Your task to perform on an android device: Clear all items from cart on ebay.com. Add "usb-a to usb-b" to the cart on ebay.com, then select checkout. Image 0: 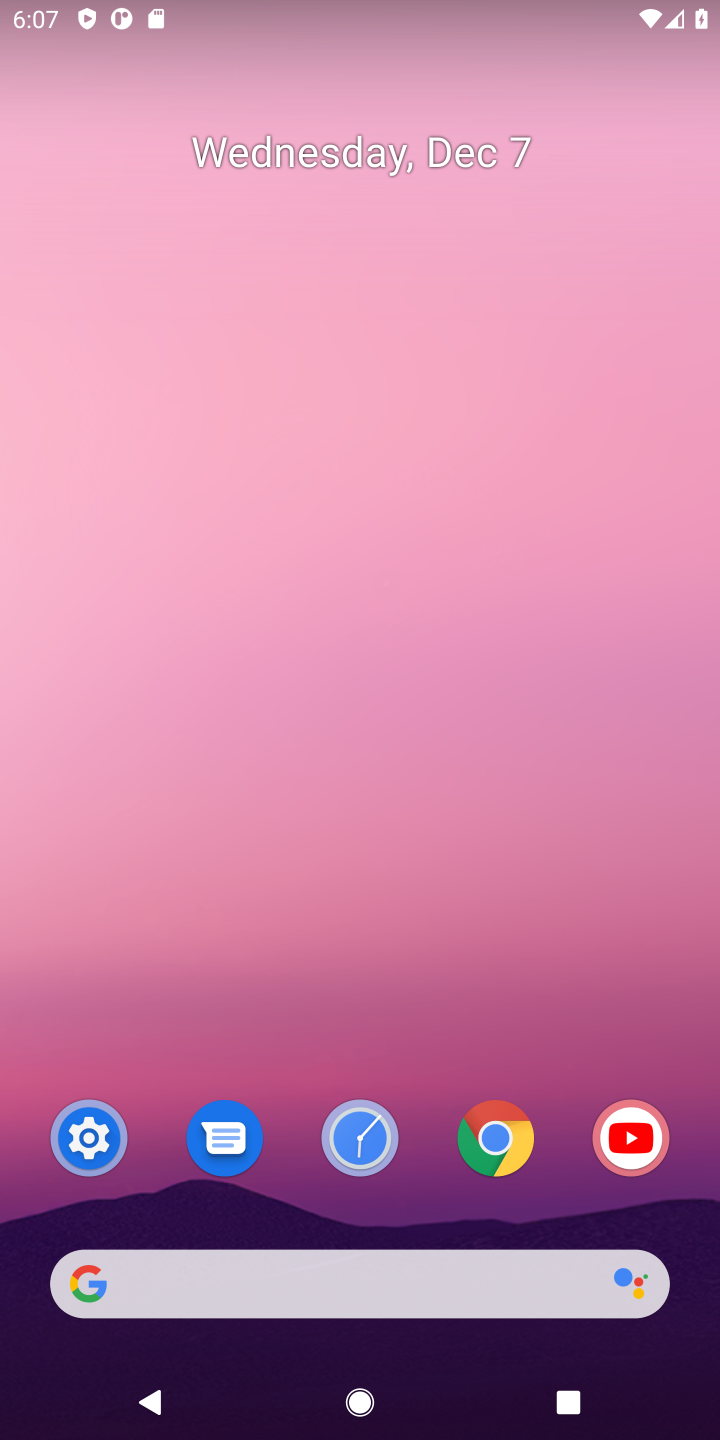
Step 0: press home button
Your task to perform on an android device: Clear all items from cart on ebay.com. Add "usb-a to usb-b" to the cart on ebay.com, then select checkout. Image 1: 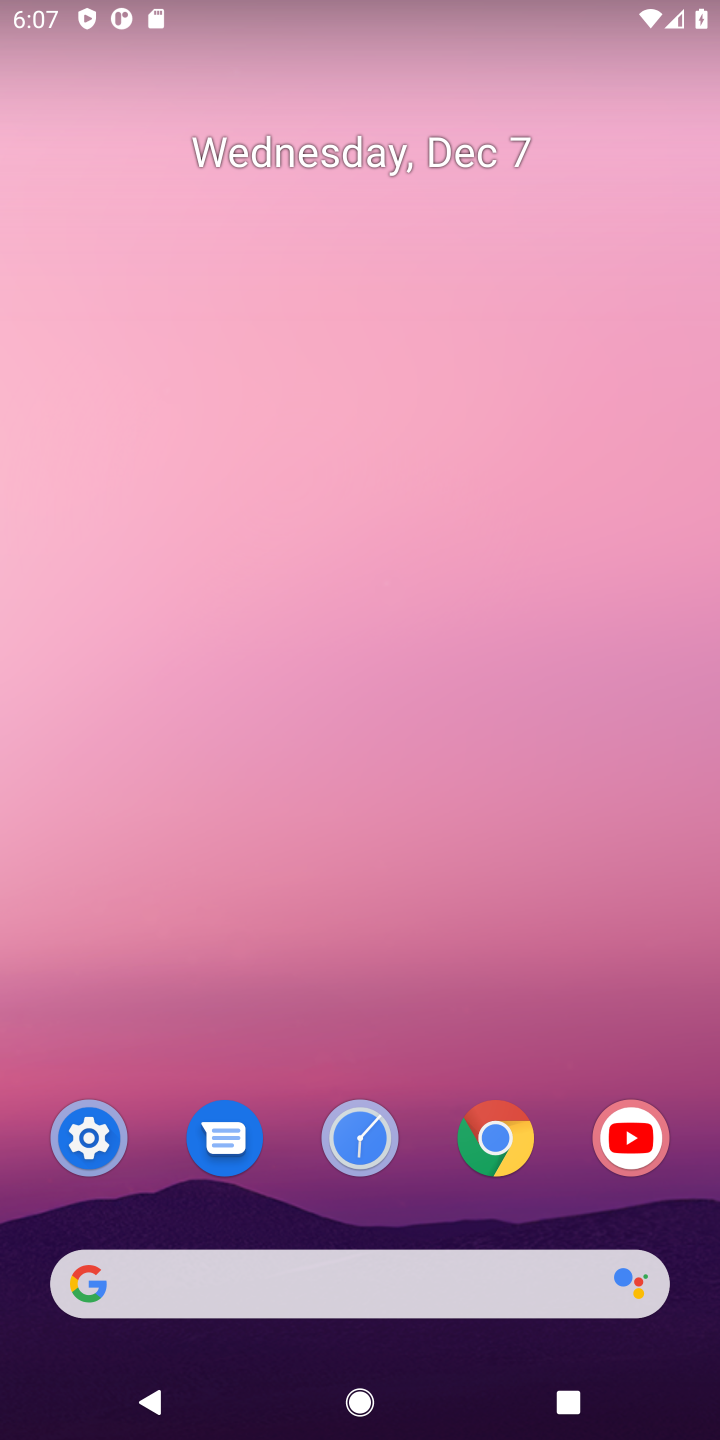
Step 1: click (286, 1288)
Your task to perform on an android device: Clear all items from cart on ebay.com. Add "usb-a to usb-b" to the cart on ebay.com, then select checkout. Image 2: 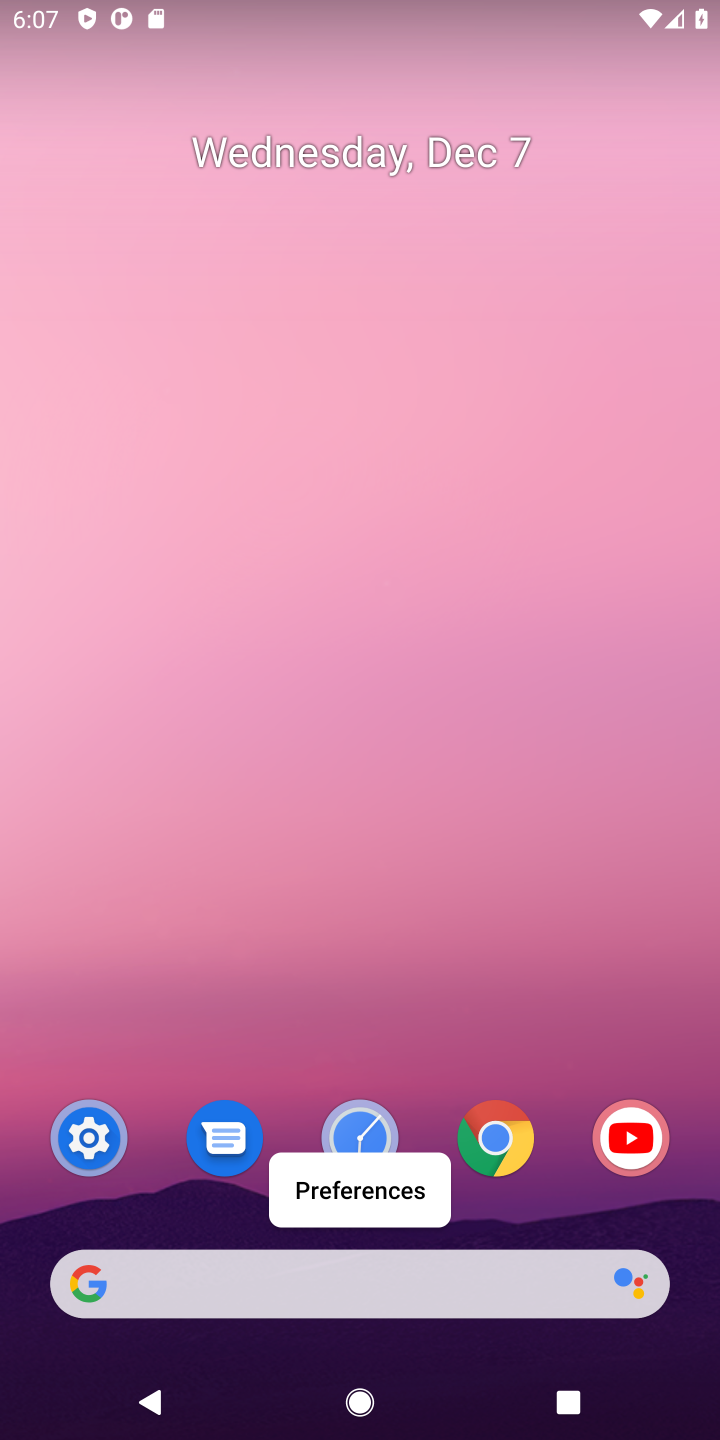
Step 2: click (165, 1279)
Your task to perform on an android device: Clear all items from cart on ebay.com. Add "usb-a to usb-b" to the cart on ebay.com, then select checkout. Image 3: 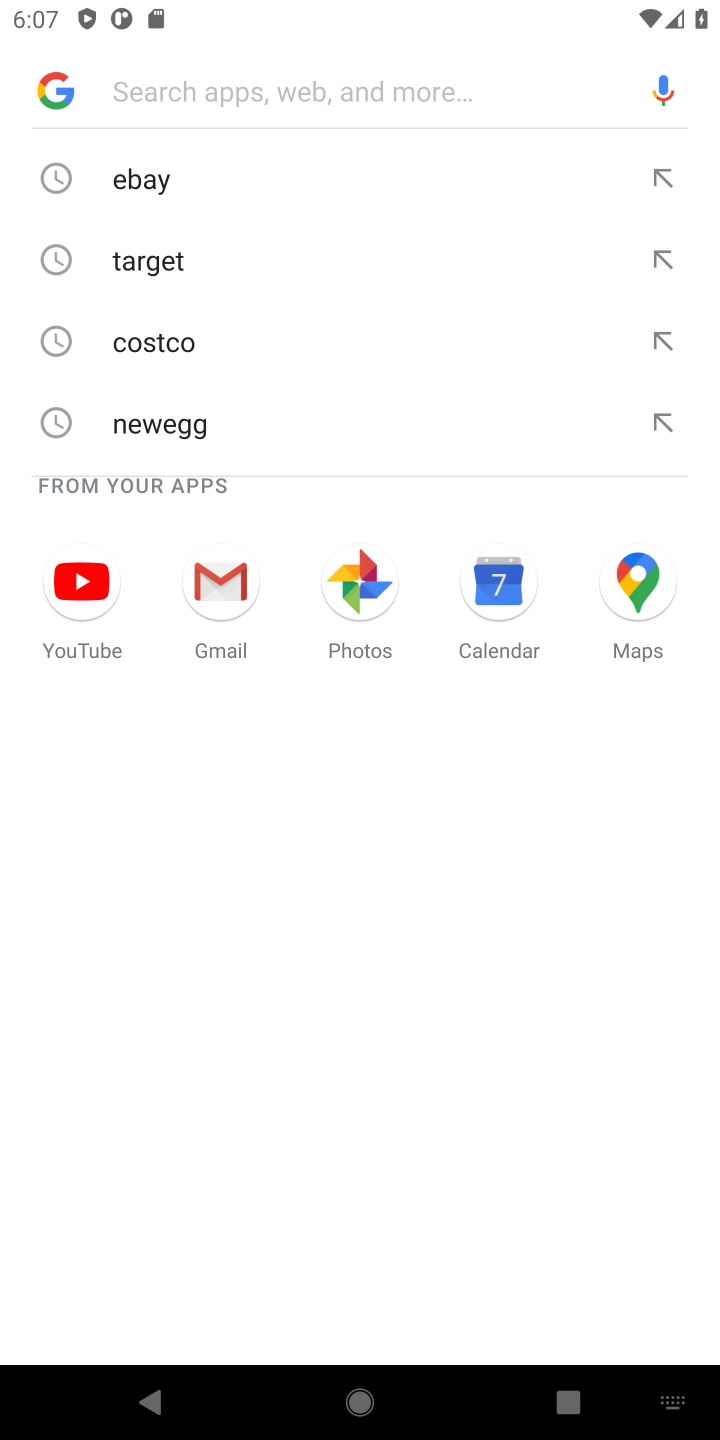
Step 3: press enter
Your task to perform on an android device: Clear all items from cart on ebay.com. Add "usb-a to usb-b" to the cart on ebay.com, then select checkout. Image 4: 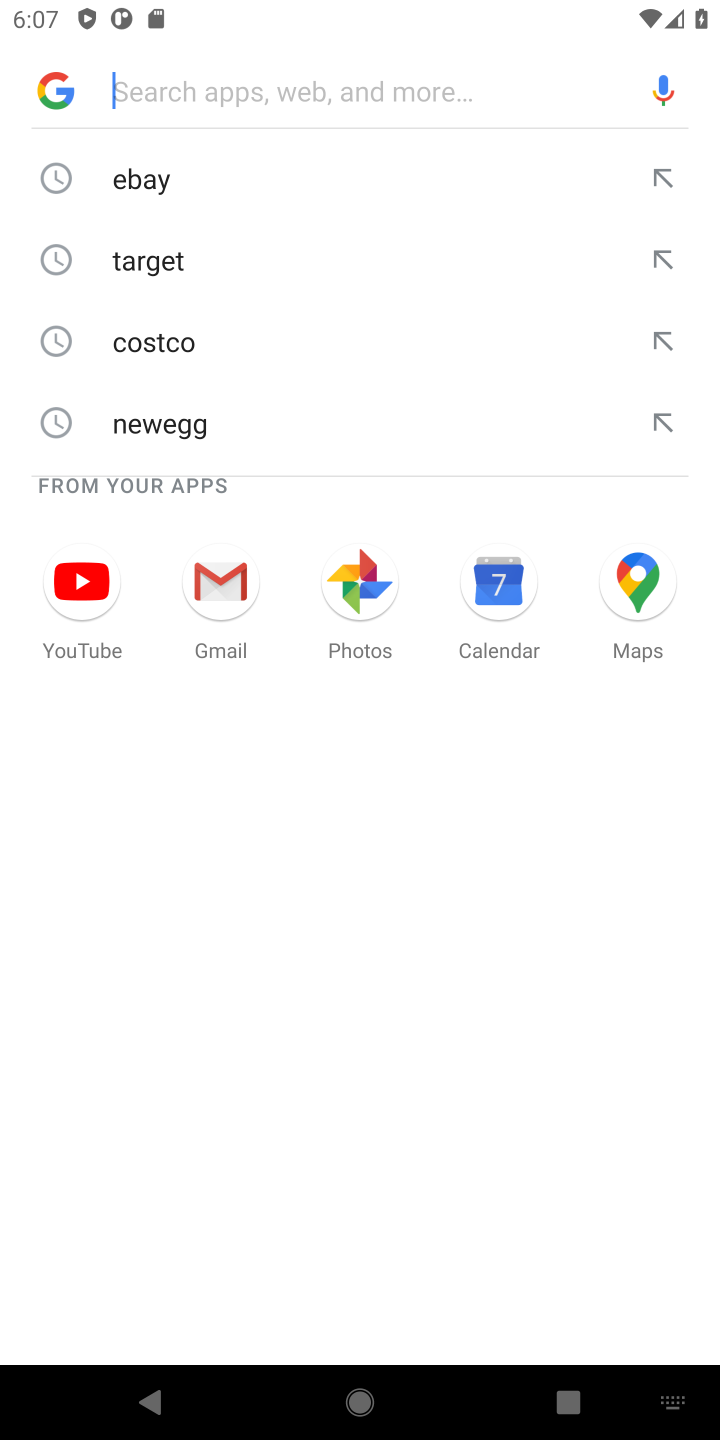
Step 4: type "ebay.com"
Your task to perform on an android device: Clear all items from cart on ebay.com. Add "usb-a to usb-b" to the cart on ebay.com, then select checkout. Image 5: 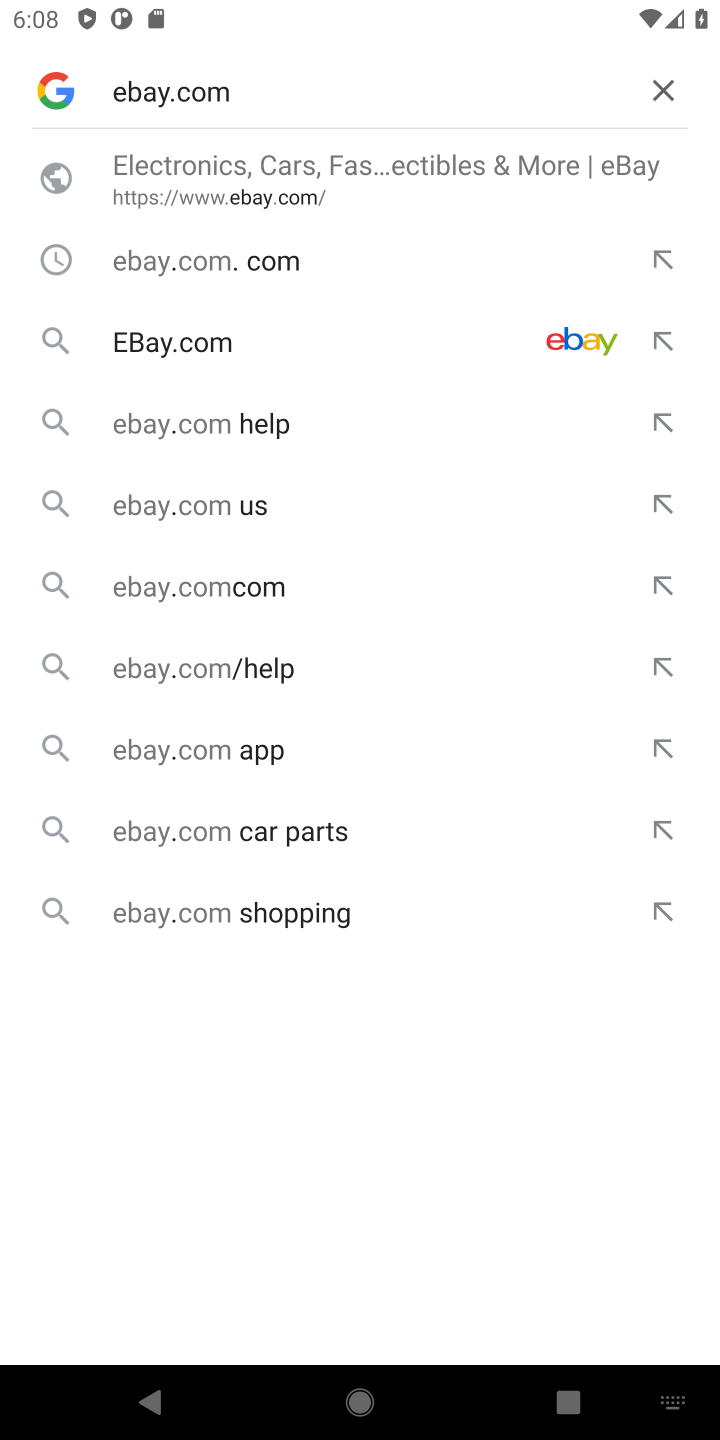
Step 5: press enter
Your task to perform on an android device: Clear all items from cart on ebay.com. Add "usb-a to usb-b" to the cart on ebay.com, then select checkout. Image 6: 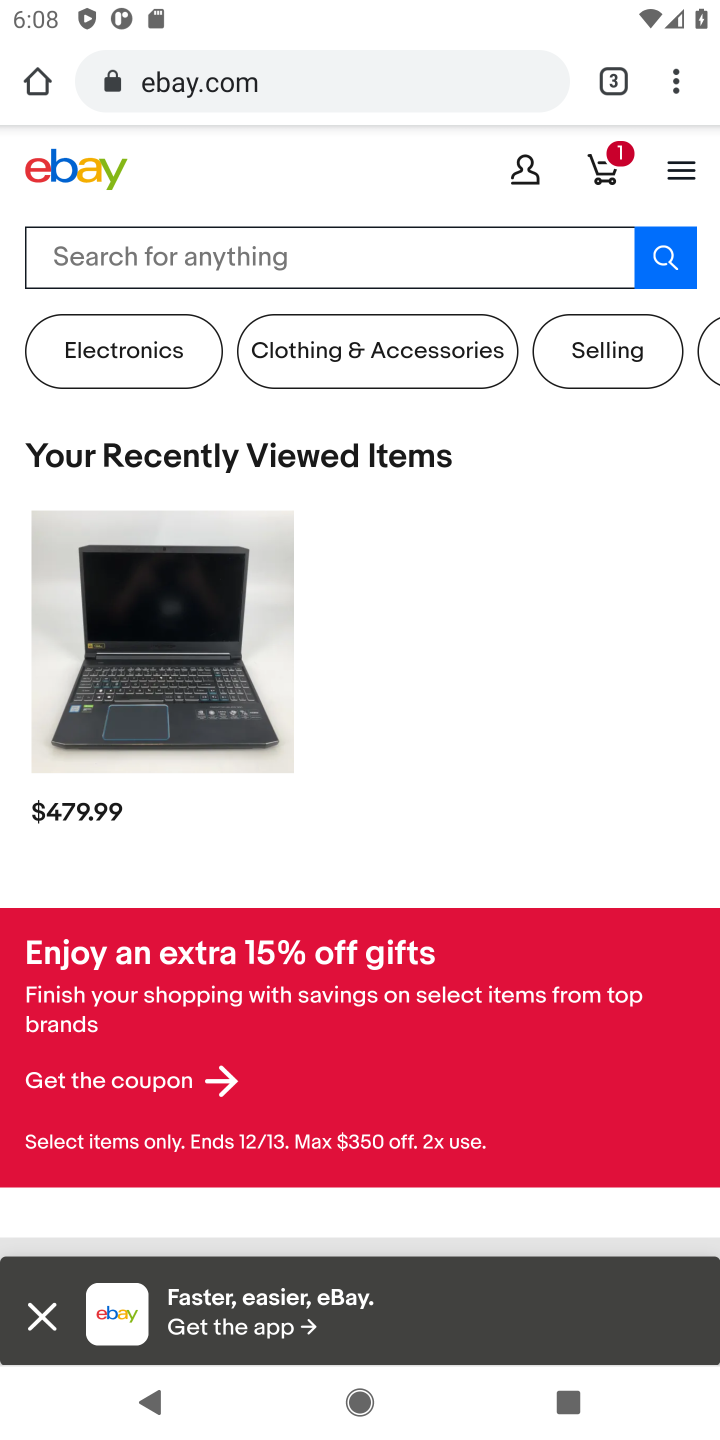
Step 6: click (184, 257)
Your task to perform on an android device: Clear all items from cart on ebay.com. Add "usb-a to usb-b" to the cart on ebay.com, then select checkout. Image 7: 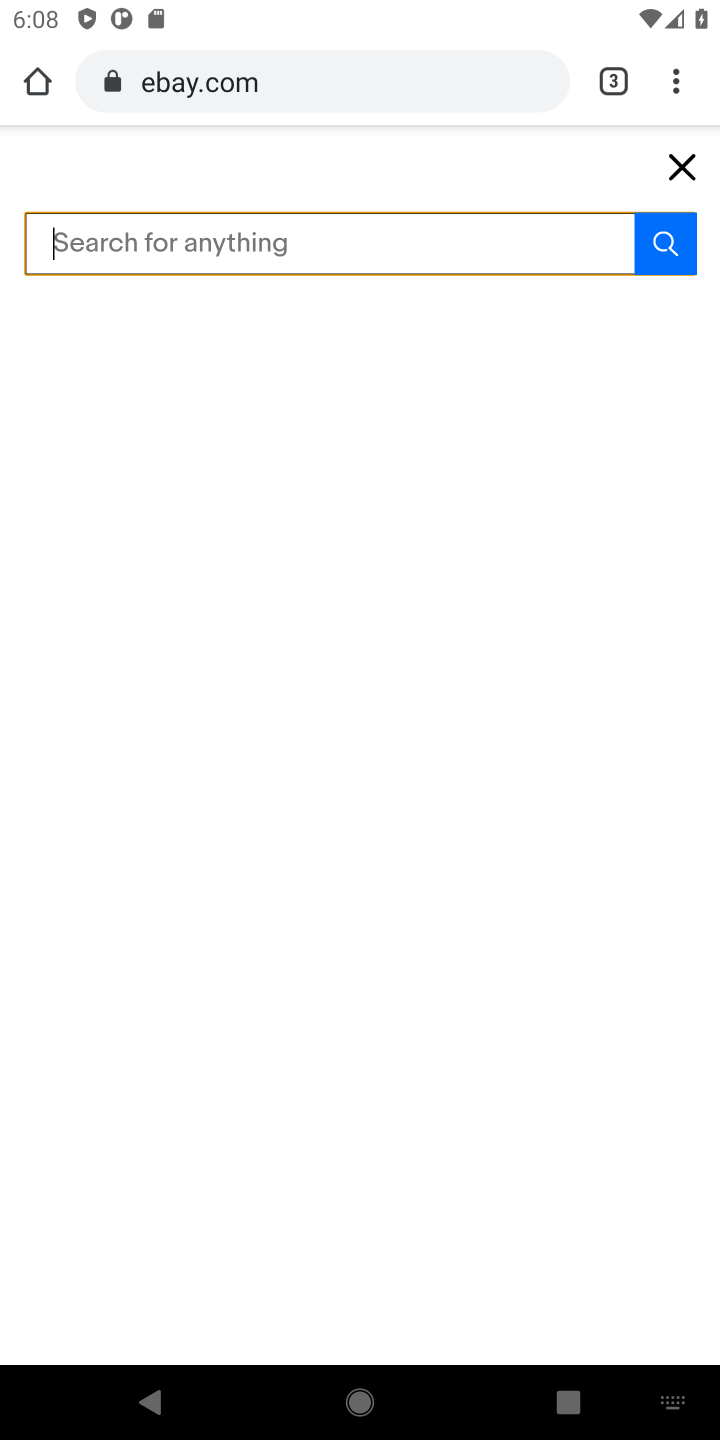
Step 7: type "usb-a to usb-b"
Your task to perform on an android device: Clear all items from cart on ebay.com. Add "usb-a to usb-b" to the cart on ebay.com, then select checkout. Image 8: 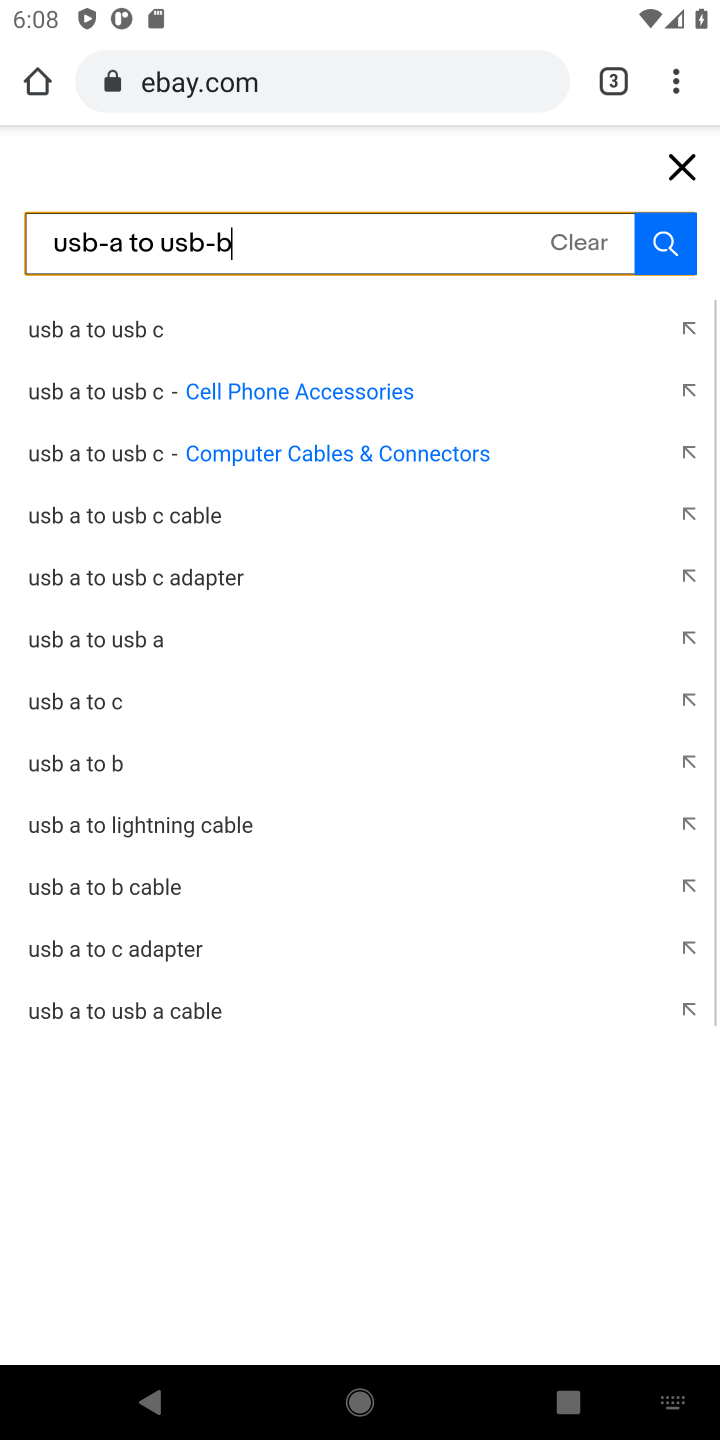
Step 8: press enter
Your task to perform on an android device: Clear all items from cart on ebay.com. Add "usb-a to usb-b" to the cart on ebay.com, then select checkout. Image 9: 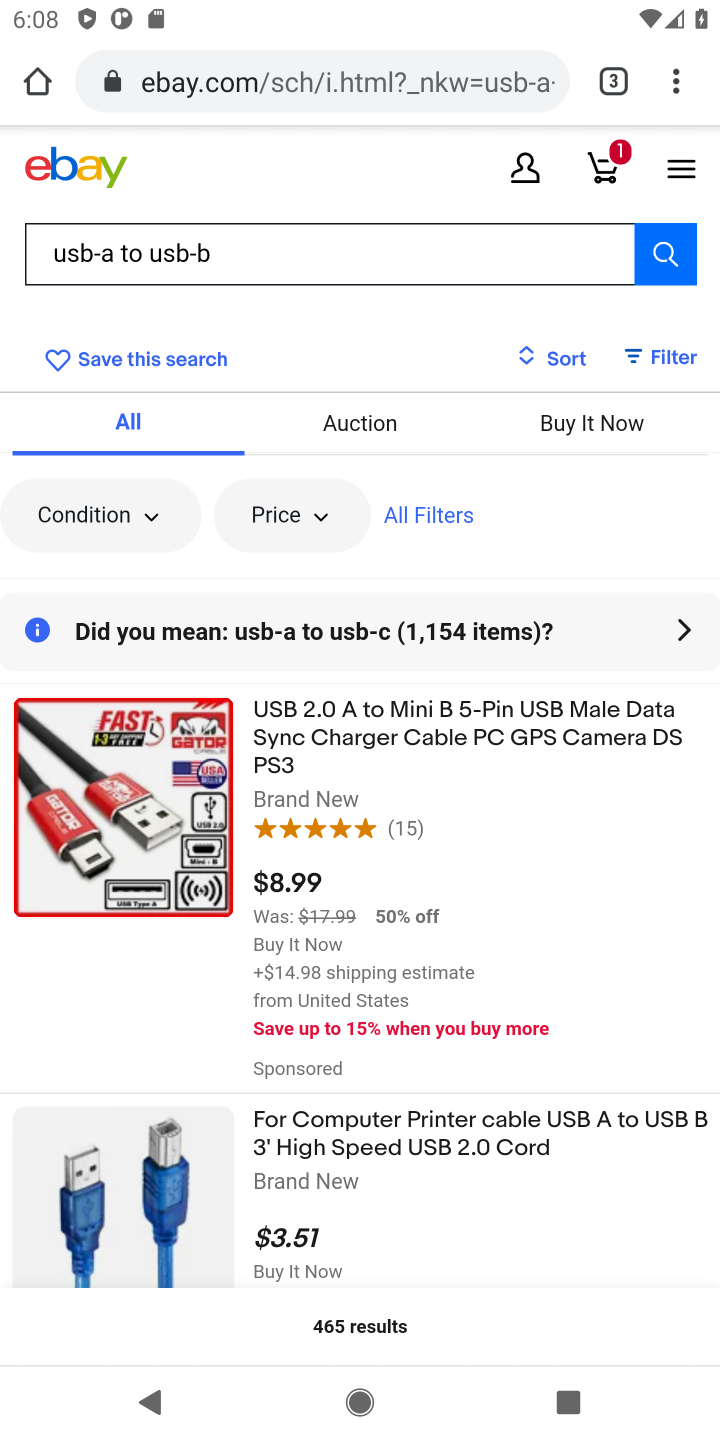
Step 9: click (410, 708)
Your task to perform on an android device: Clear all items from cart on ebay.com. Add "usb-a to usb-b" to the cart on ebay.com, then select checkout. Image 10: 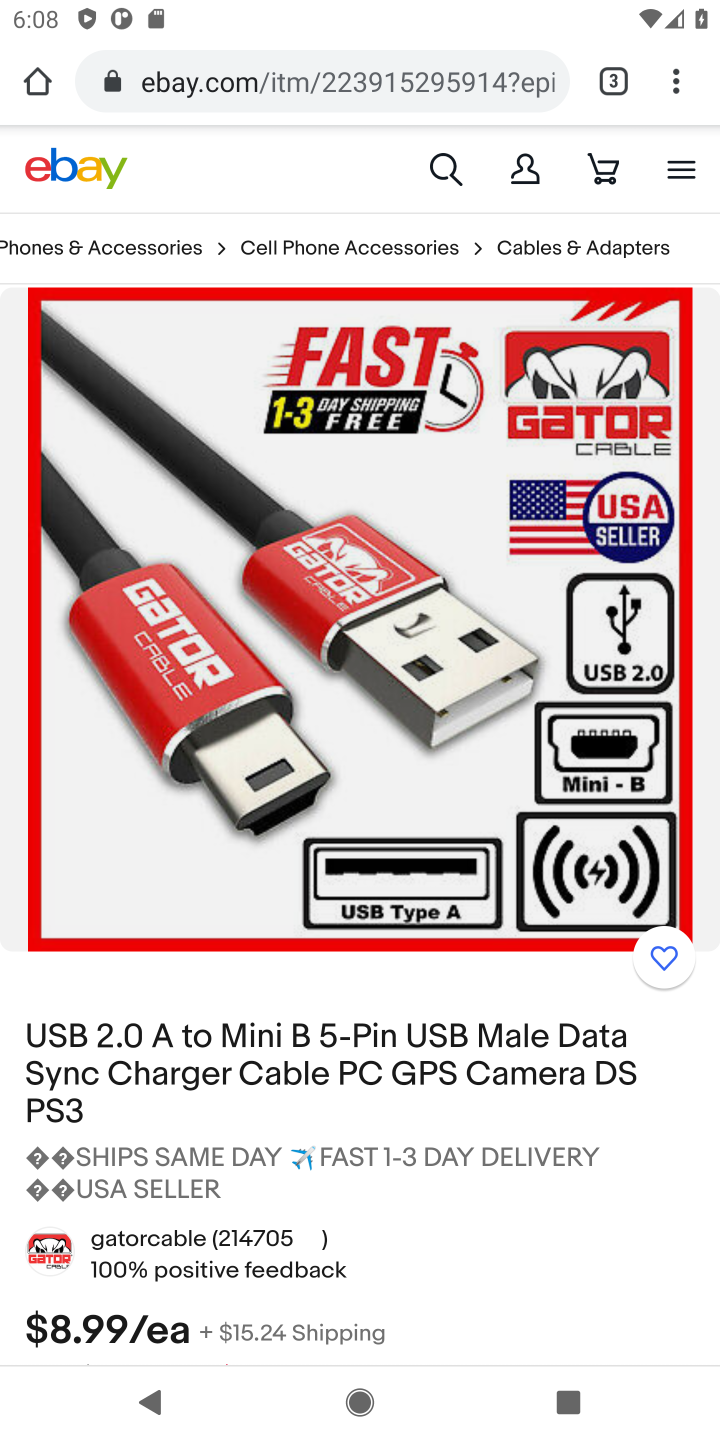
Step 10: drag from (359, 1156) to (459, 590)
Your task to perform on an android device: Clear all items from cart on ebay.com. Add "usb-a to usb-b" to the cart on ebay.com, then select checkout. Image 11: 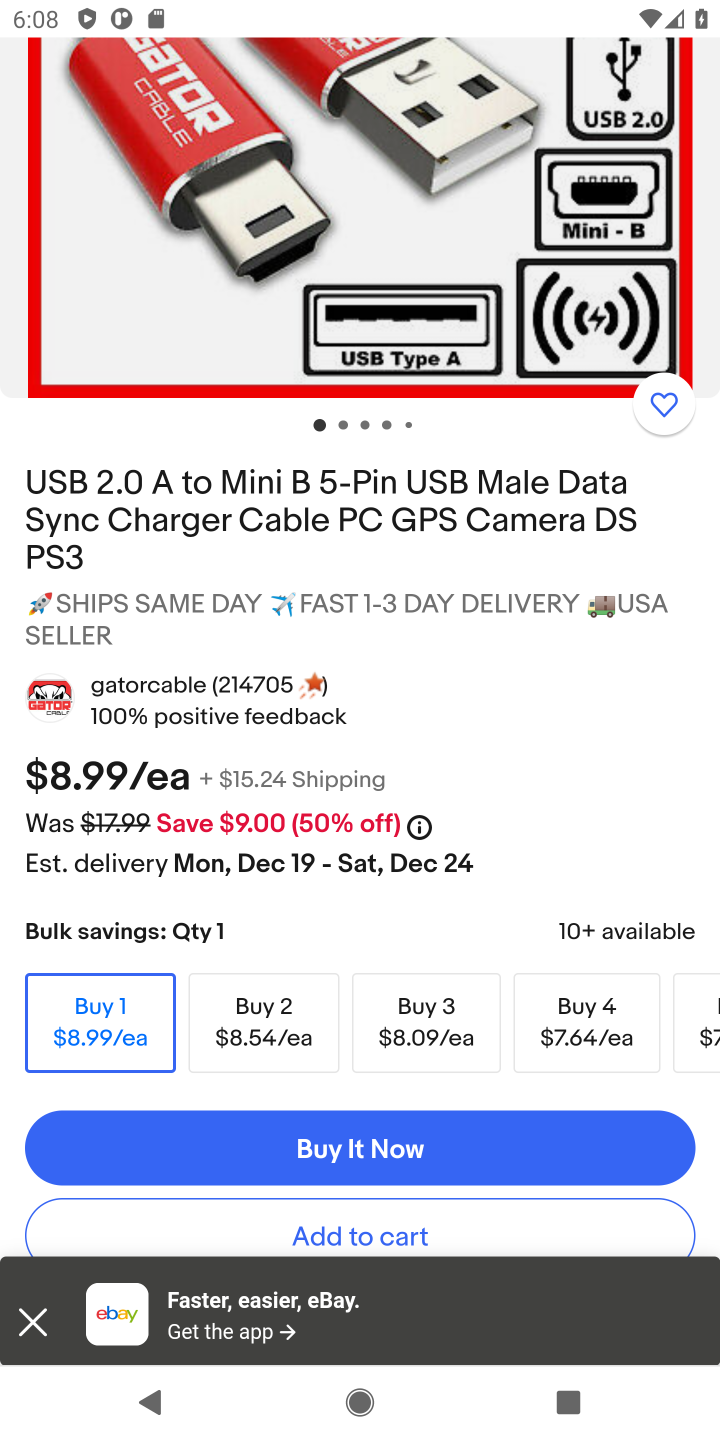
Step 11: drag from (507, 1058) to (508, 652)
Your task to perform on an android device: Clear all items from cart on ebay.com. Add "usb-a to usb-b" to the cart on ebay.com, then select checkout. Image 12: 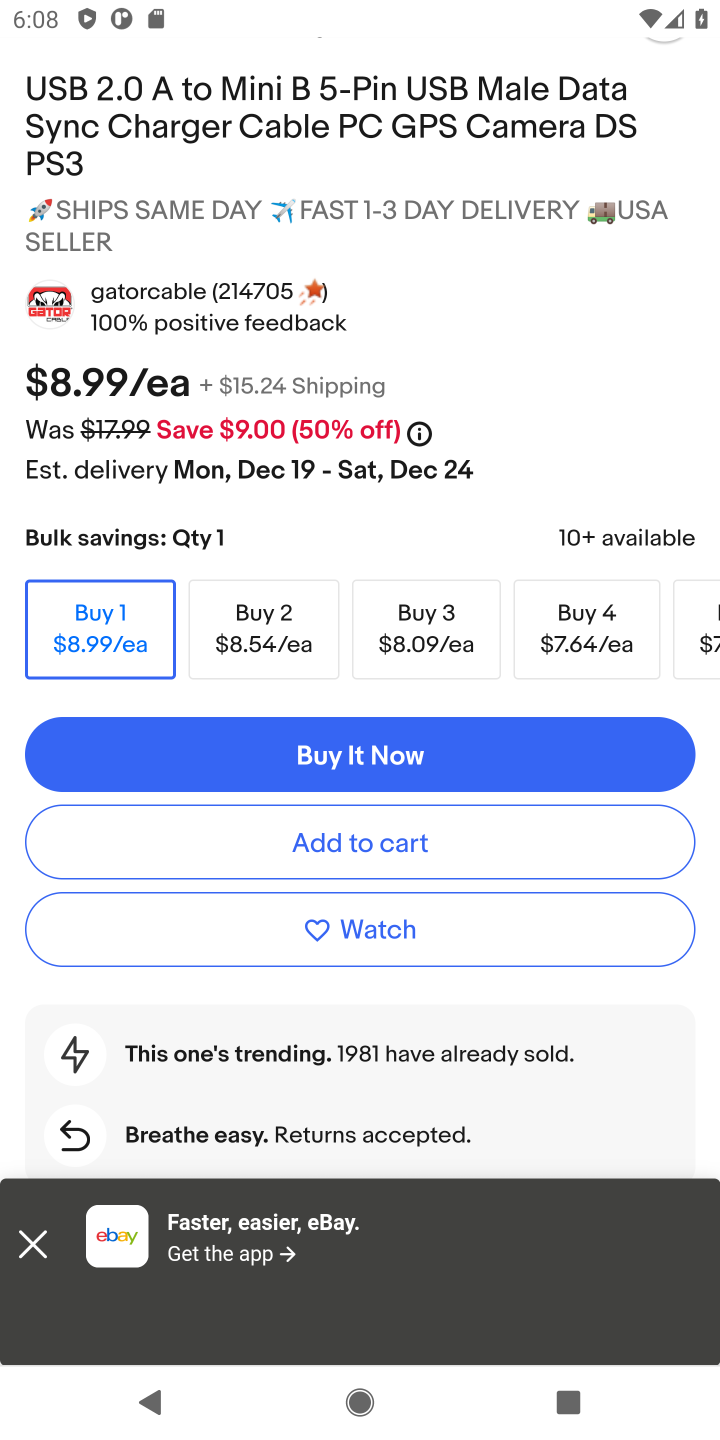
Step 12: click (358, 845)
Your task to perform on an android device: Clear all items from cart on ebay.com. Add "usb-a to usb-b" to the cart on ebay.com, then select checkout. Image 13: 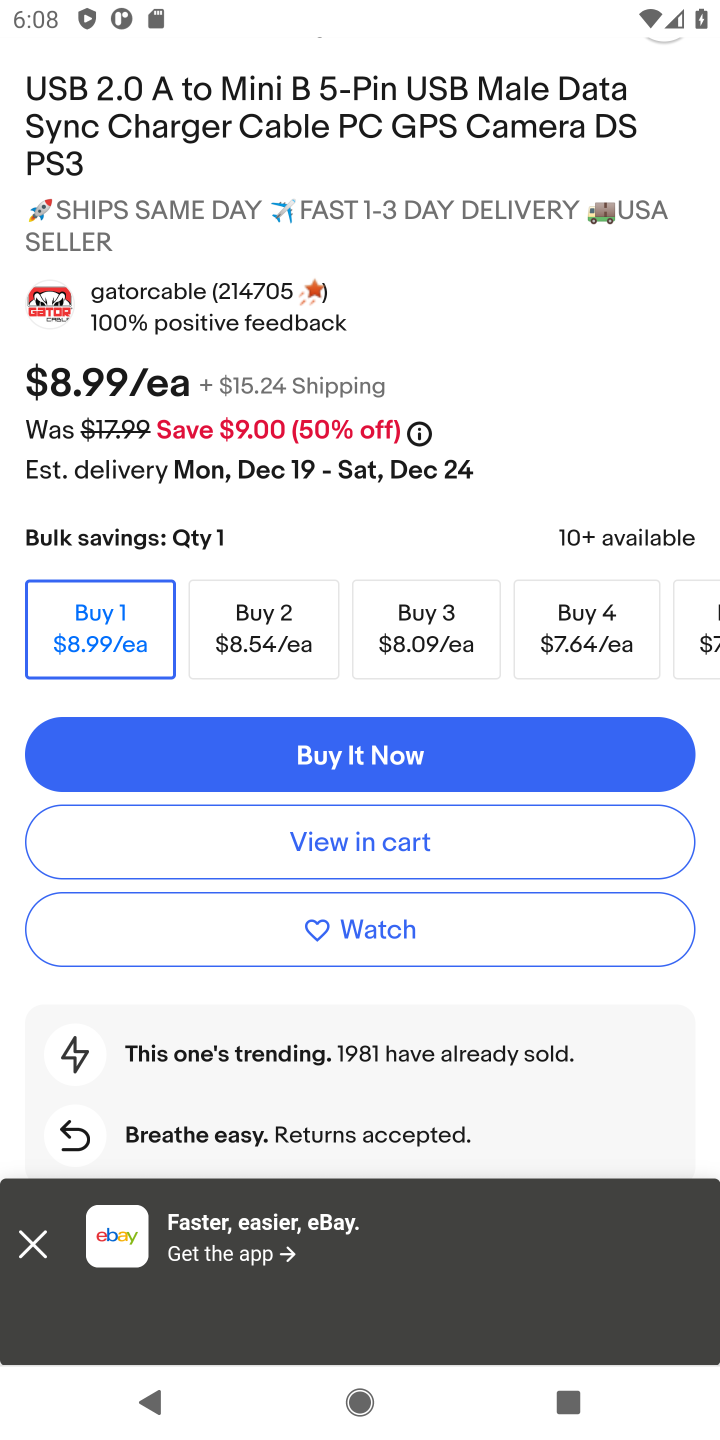
Step 13: click (395, 846)
Your task to perform on an android device: Clear all items from cart on ebay.com. Add "usb-a to usb-b" to the cart on ebay.com, then select checkout. Image 14: 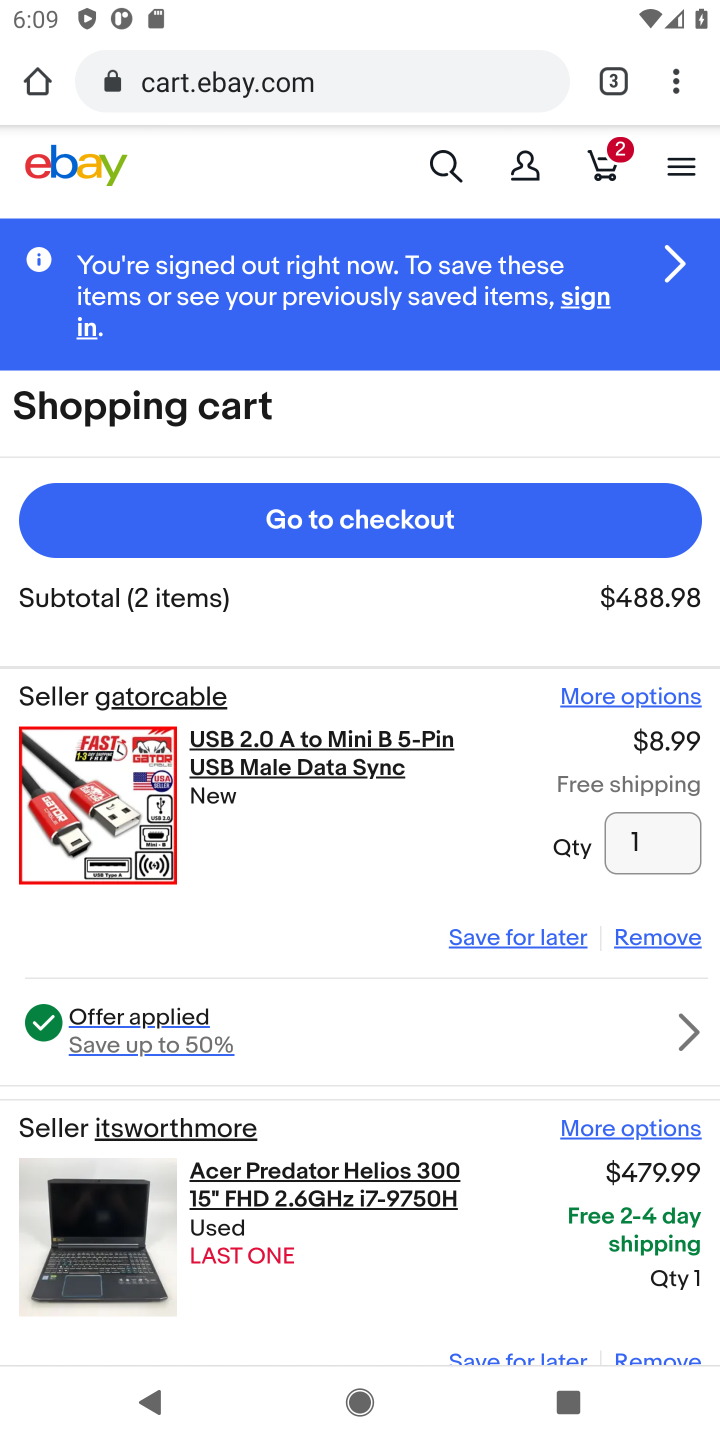
Step 14: click (365, 483)
Your task to perform on an android device: Clear all items from cart on ebay.com. Add "usb-a to usb-b" to the cart on ebay.com, then select checkout. Image 15: 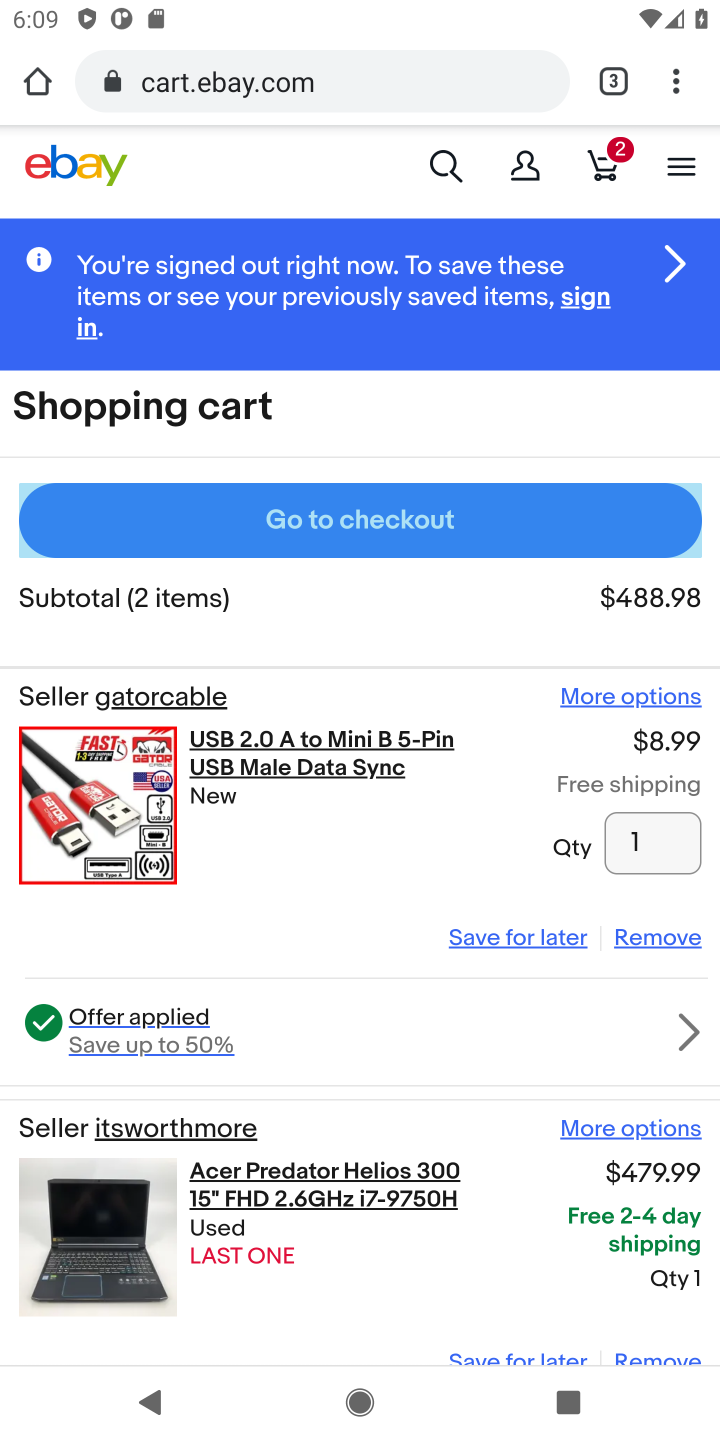
Step 15: click (365, 516)
Your task to perform on an android device: Clear all items from cart on ebay.com. Add "usb-a to usb-b" to the cart on ebay.com, then select checkout. Image 16: 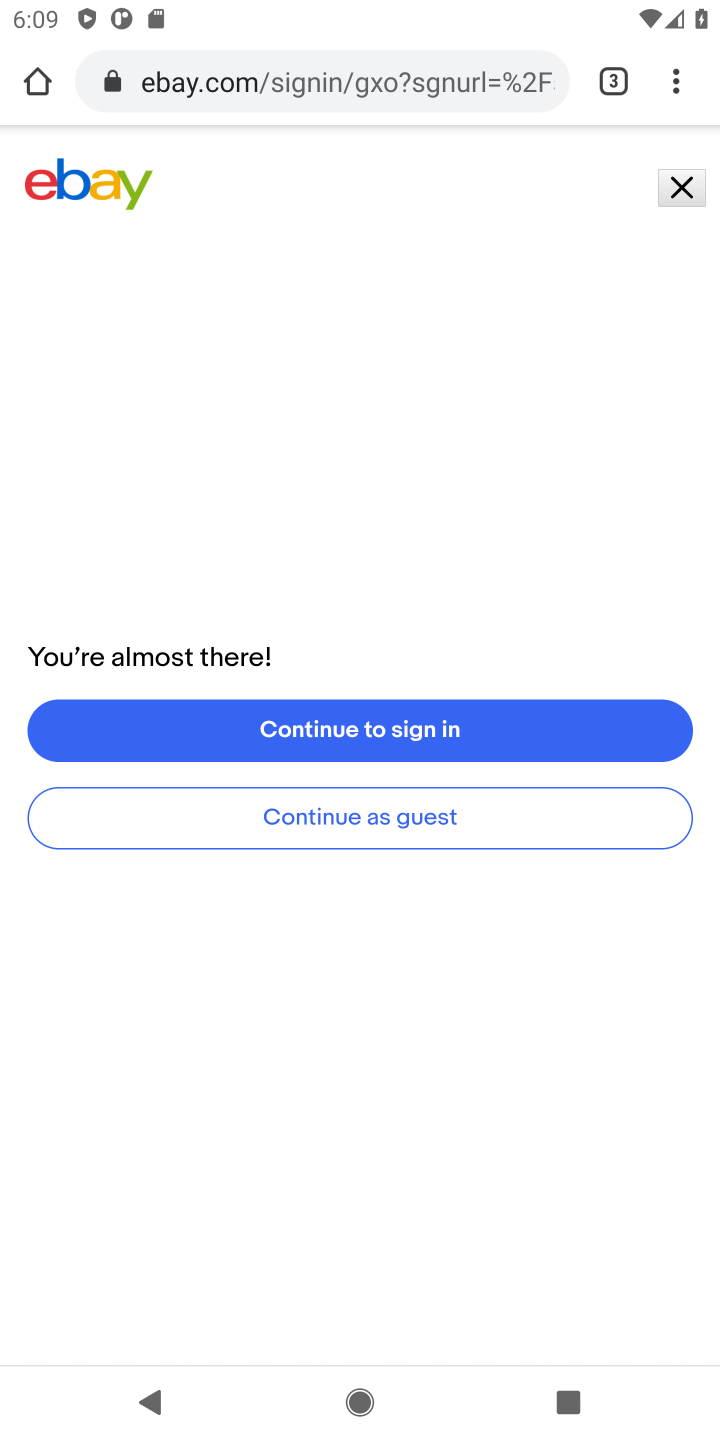
Step 16: task complete